Your task to perform on an android device: See recent photos Image 0: 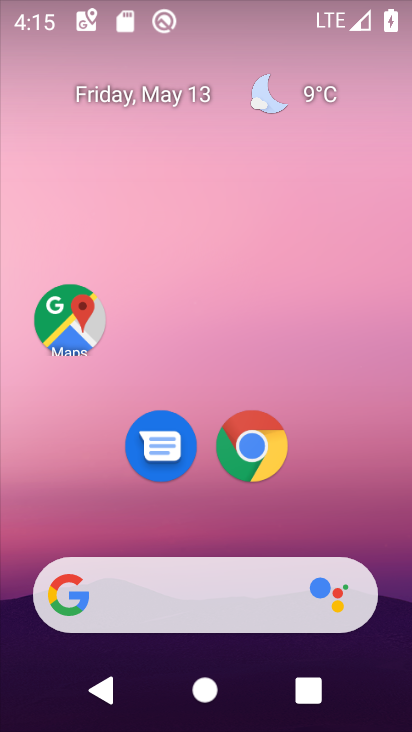
Step 0: drag from (179, 512) to (191, 77)
Your task to perform on an android device: See recent photos Image 1: 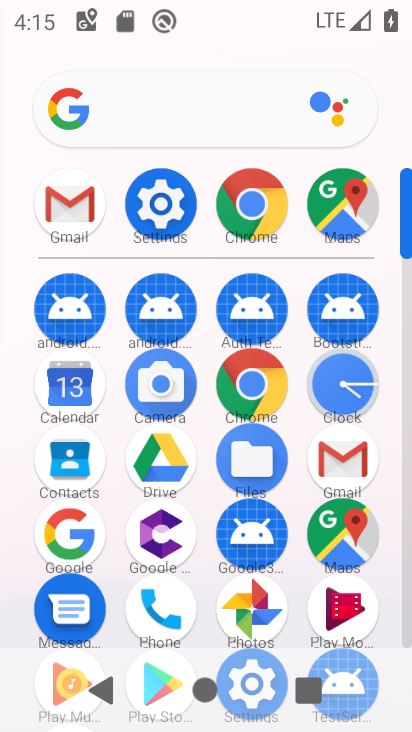
Step 1: click (245, 605)
Your task to perform on an android device: See recent photos Image 2: 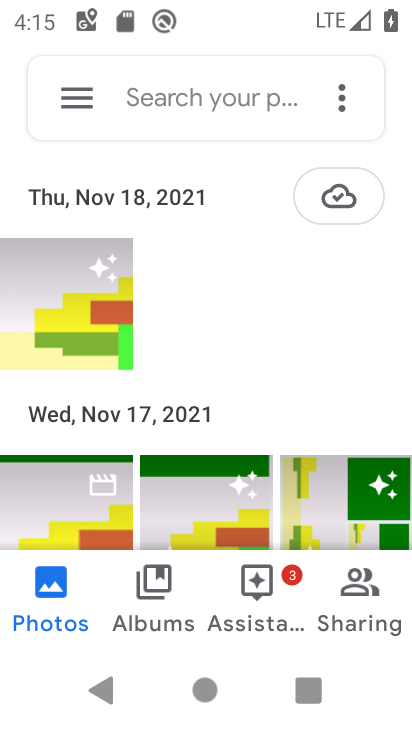
Step 2: task complete